Your task to perform on an android device: Open calendar and show me the first week of next month Image 0: 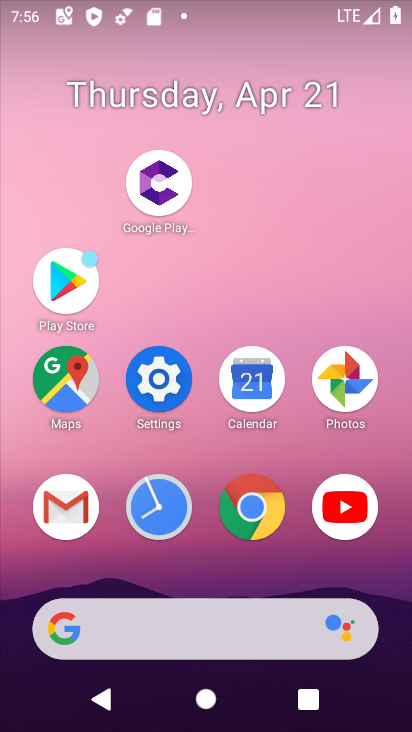
Step 0: click (238, 390)
Your task to perform on an android device: Open calendar and show me the first week of next month Image 1: 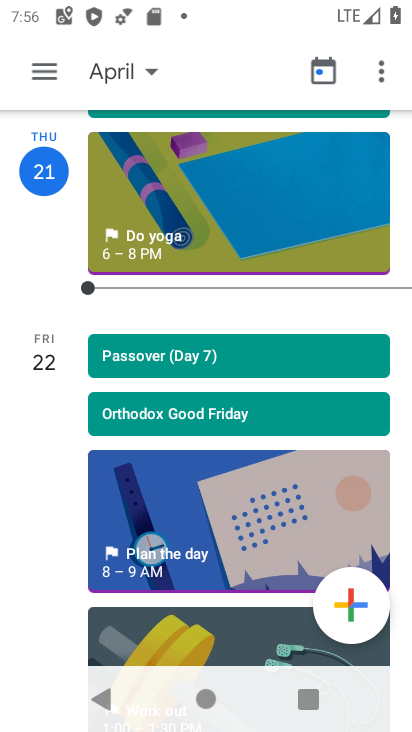
Step 1: click (147, 65)
Your task to perform on an android device: Open calendar and show me the first week of next month Image 2: 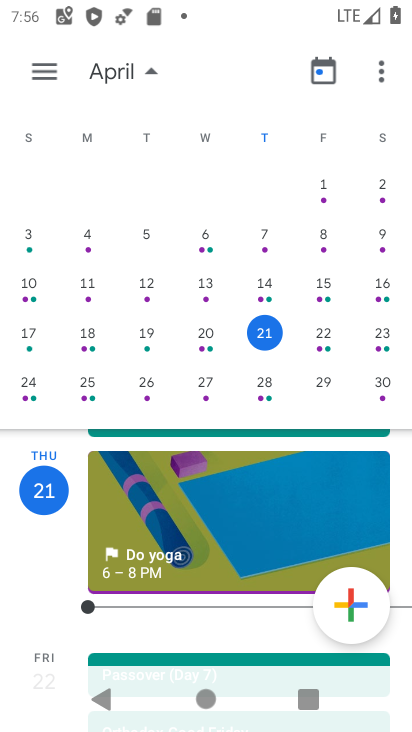
Step 2: drag from (354, 281) to (66, 229)
Your task to perform on an android device: Open calendar and show me the first week of next month Image 3: 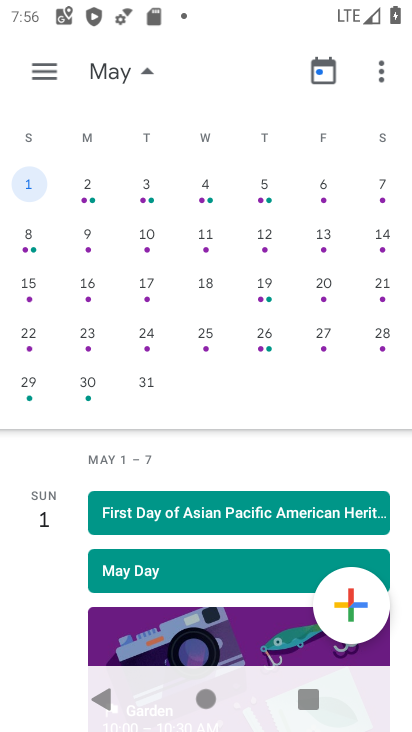
Step 3: click (141, 187)
Your task to perform on an android device: Open calendar and show me the first week of next month Image 4: 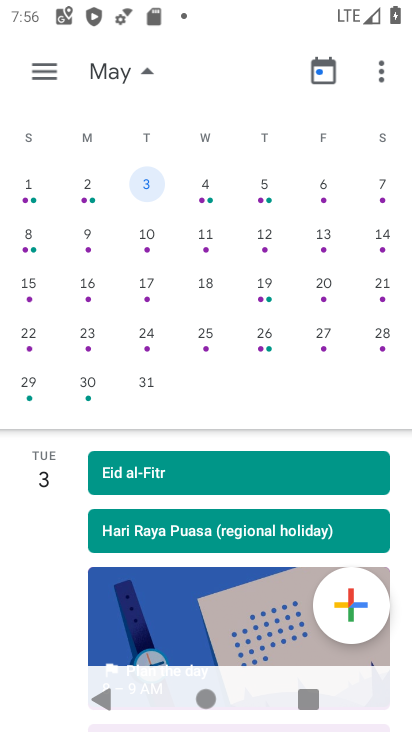
Step 4: task complete